Your task to perform on an android device: Open calendar and show me the second week of next month Image 0: 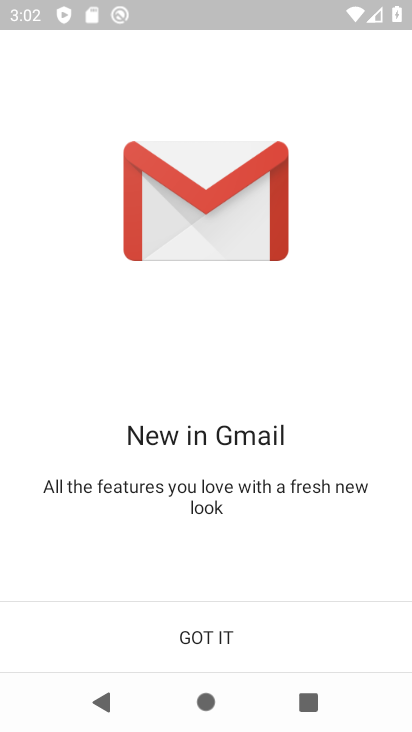
Step 0: press back button
Your task to perform on an android device: Open calendar and show me the second week of next month Image 1: 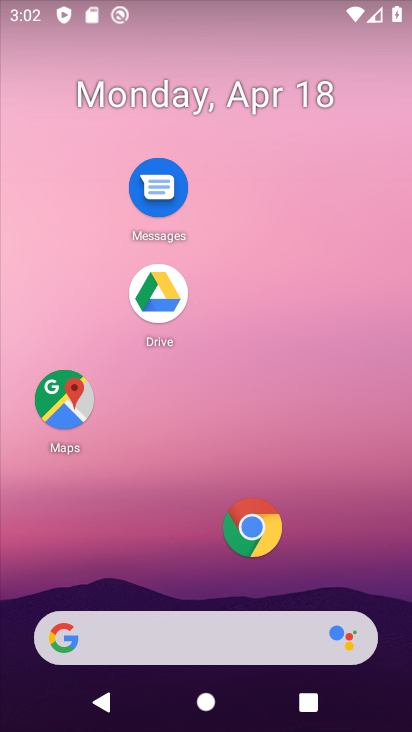
Step 1: drag from (148, 566) to (181, 31)
Your task to perform on an android device: Open calendar and show me the second week of next month Image 2: 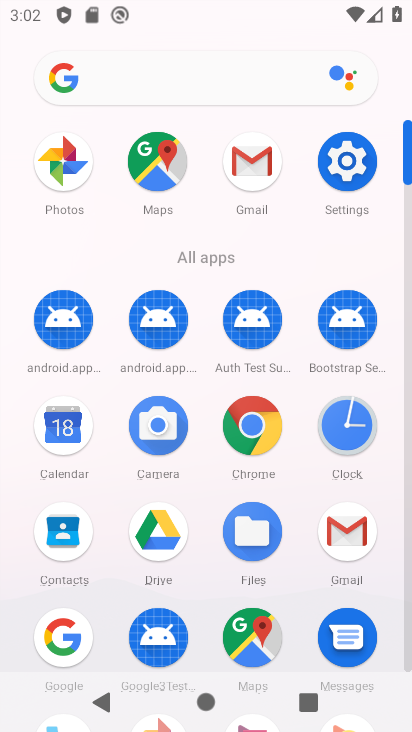
Step 2: click (68, 422)
Your task to perform on an android device: Open calendar and show me the second week of next month Image 3: 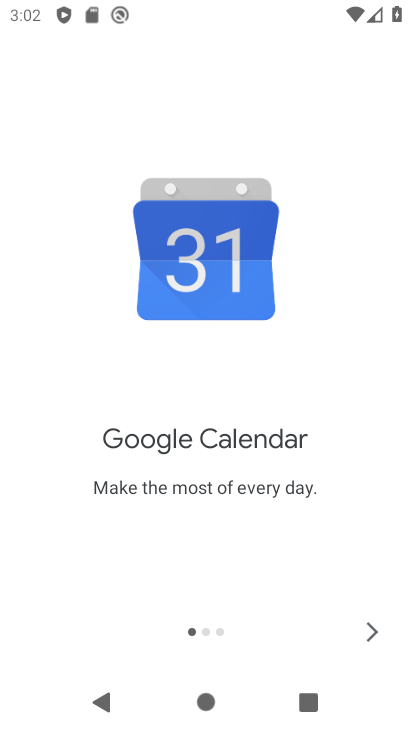
Step 3: click (377, 636)
Your task to perform on an android device: Open calendar and show me the second week of next month Image 4: 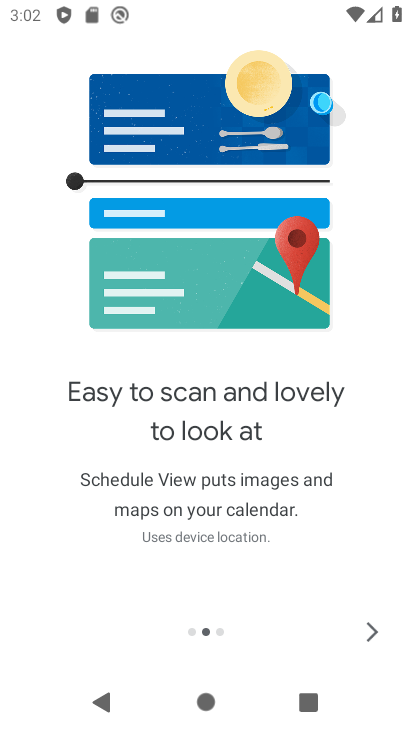
Step 4: click (377, 636)
Your task to perform on an android device: Open calendar and show me the second week of next month Image 5: 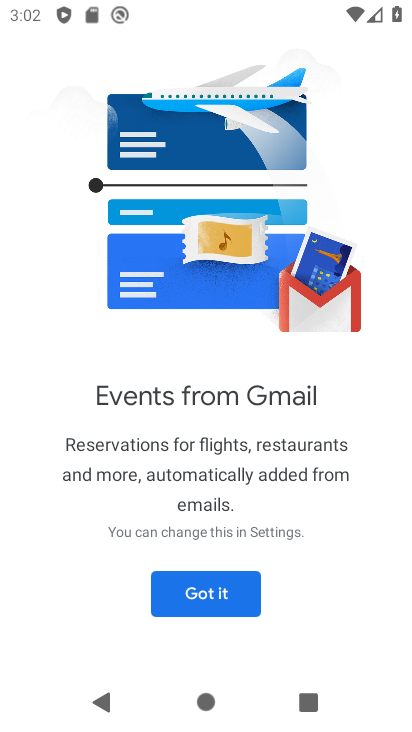
Step 5: click (204, 600)
Your task to perform on an android device: Open calendar and show me the second week of next month Image 6: 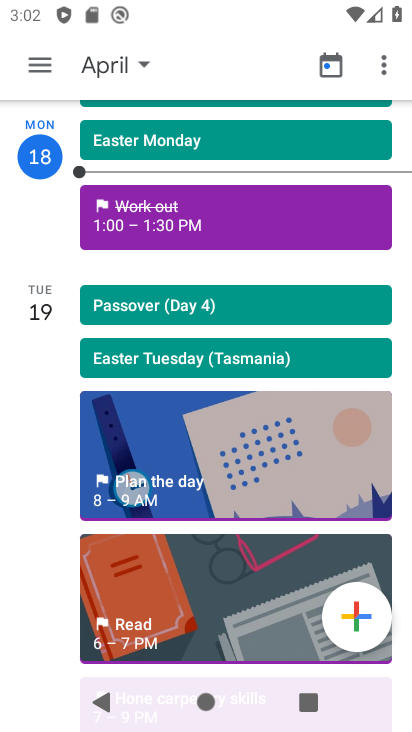
Step 6: click (144, 69)
Your task to perform on an android device: Open calendar and show me the second week of next month Image 7: 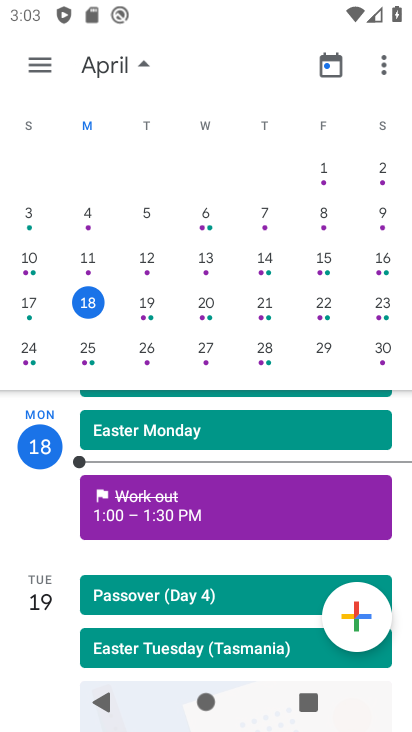
Step 7: drag from (339, 282) to (30, 344)
Your task to perform on an android device: Open calendar and show me the second week of next month Image 8: 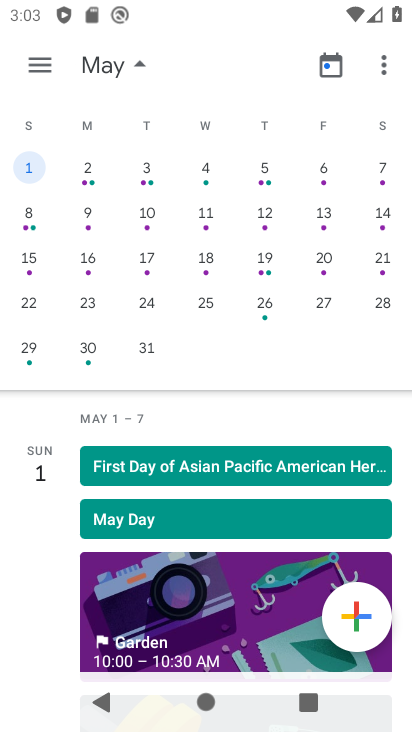
Step 8: click (77, 212)
Your task to perform on an android device: Open calendar and show me the second week of next month Image 9: 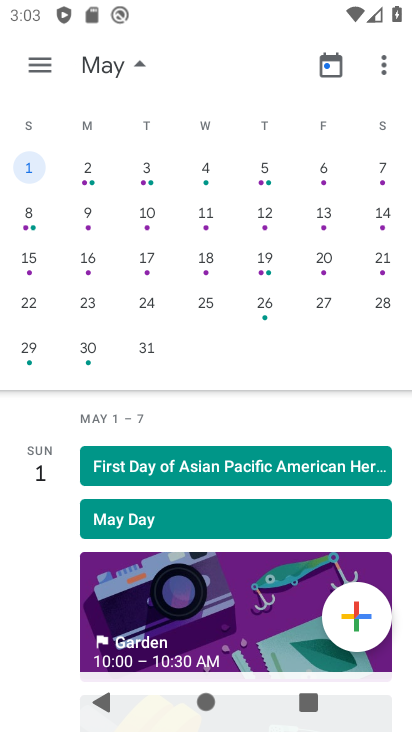
Step 9: click (88, 215)
Your task to perform on an android device: Open calendar and show me the second week of next month Image 10: 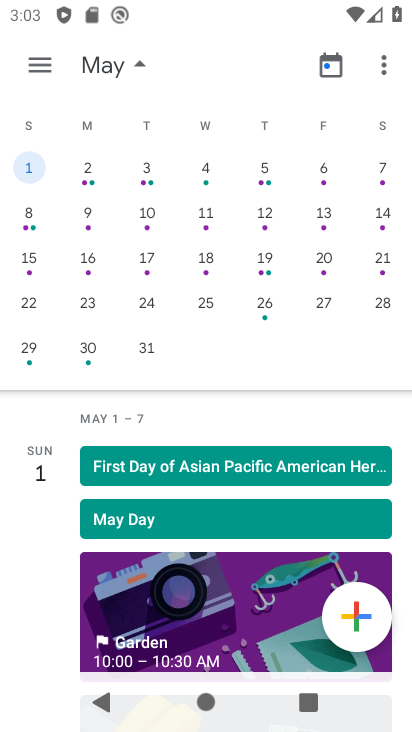
Step 10: click (87, 212)
Your task to perform on an android device: Open calendar and show me the second week of next month Image 11: 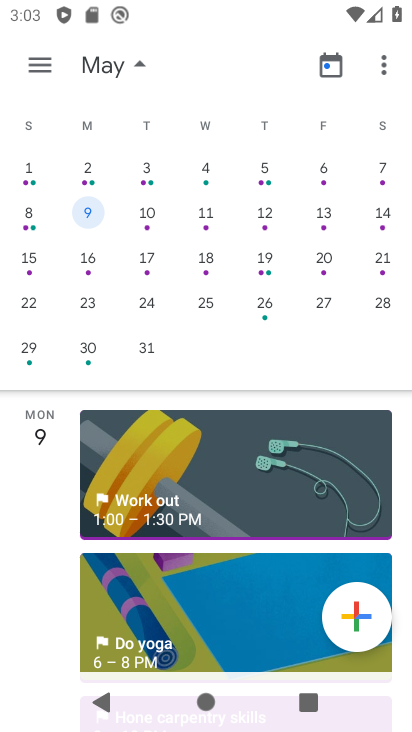
Step 11: click (35, 73)
Your task to perform on an android device: Open calendar and show me the second week of next month Image 12: 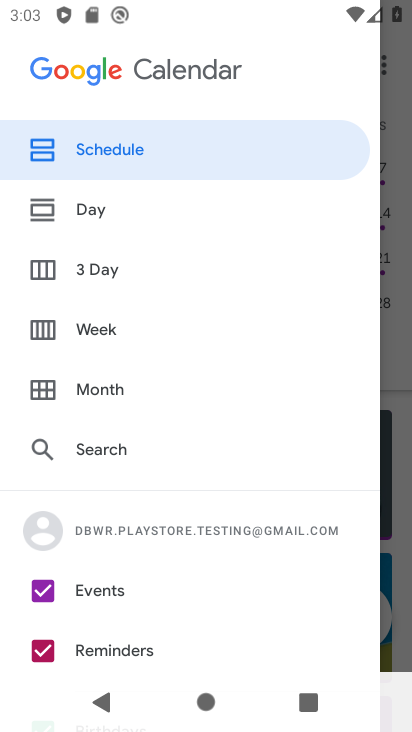
Step 12: click (107, 332)
Your task to perform on an android device: Open calendar and show me the second week of next month Image 13: 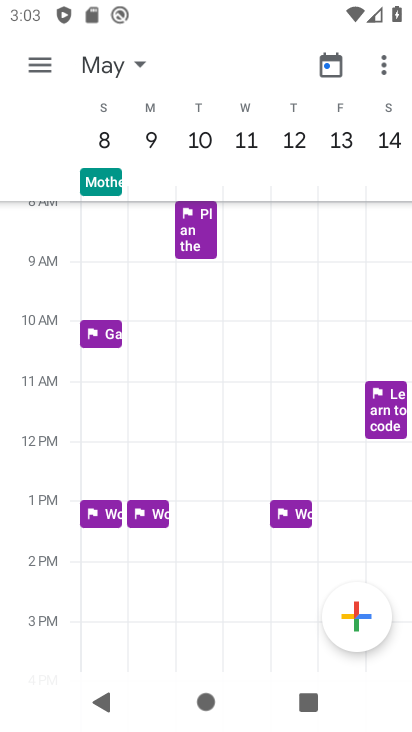
Step 13: task complete